Your task to perform on an android device: turn off priority inbox in the gmail app Image 0: 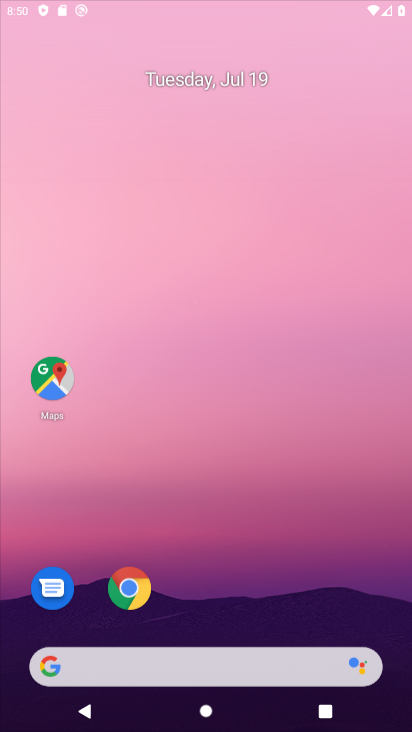
Step 0: drag from (176, 412) to (111, 49)
Your task to perform on an android device: turn off priority inbox in the gmail app Image 1: 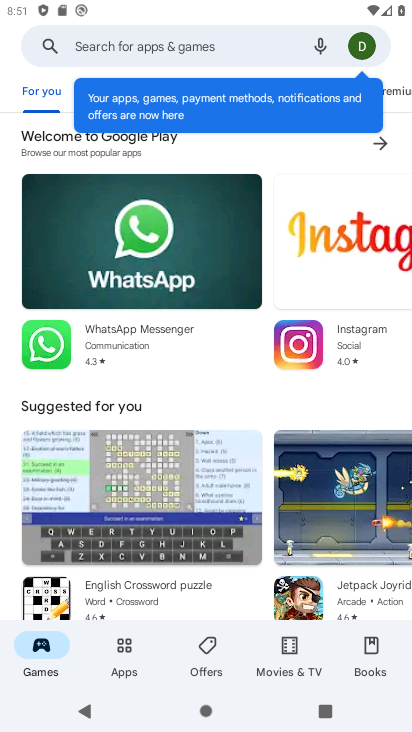
Step 1: press home button
Your task to perform on an android device: turn off priority inbox in the gmail app Image 2: 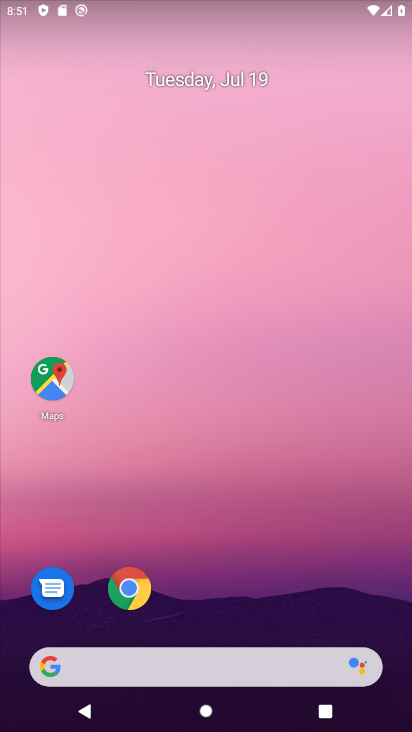
Step 2: drag from (220, 584) to (381, 17)
Your task to perform on an android device: turn off priority inbox in the gmail app Image 3: 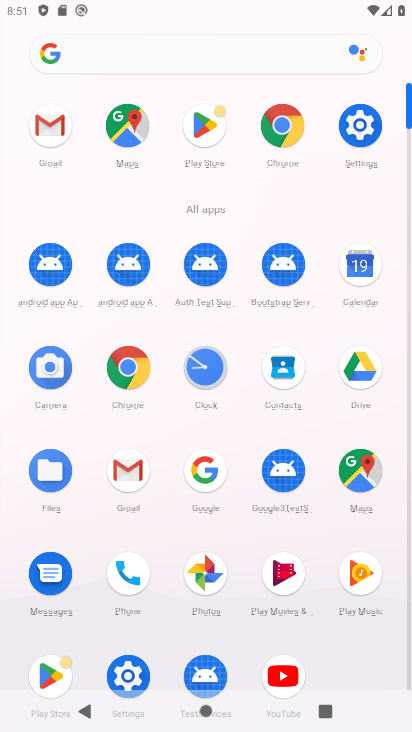
Step 3: click (62, 132)
Your task to perform on an android device: turn off priority inbox in the gmail app Image 4: 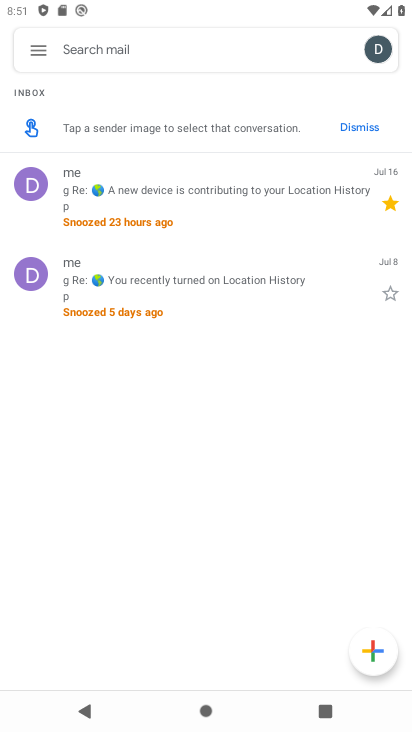
Step 4: click (50, 49)
Your task to perform on an android device: turn off priority inbox in the gmail app Image 5: 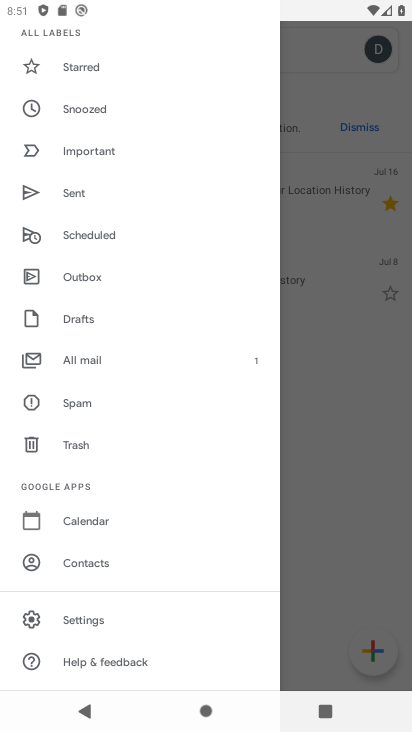
Step 5: click (53, 633)
Your task to perform on an android device: turn off priority inbox in the gmail app Image 6: 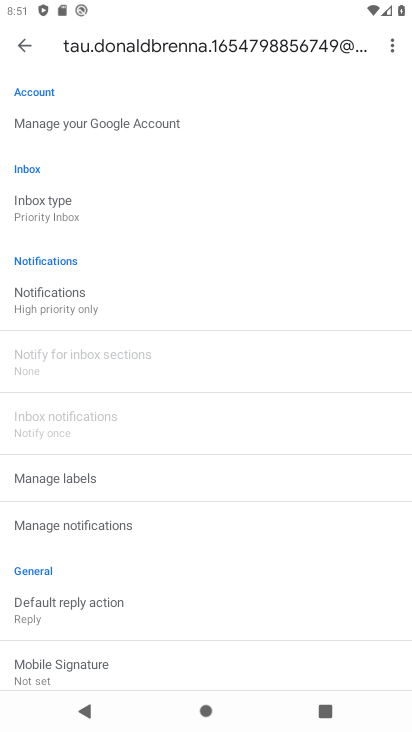
Step 6: click (66, 213)
Your task to perform on an android device: turn off priority inbox in the gmail app Image 7: 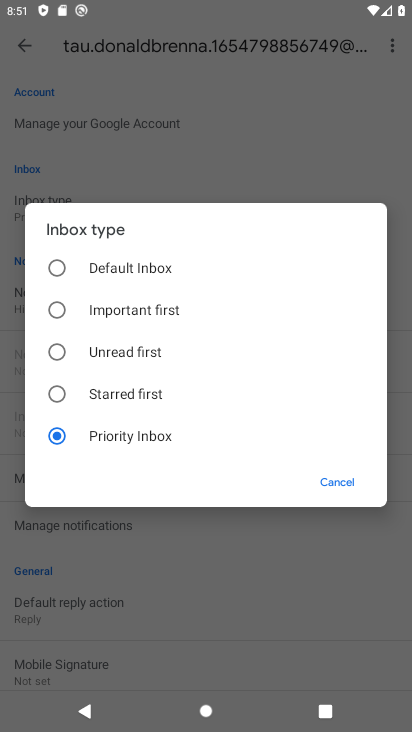
Step 7: click (49, 268)
Your task to perform on an android device: turn off priority inbox in the gmail app Image 8: 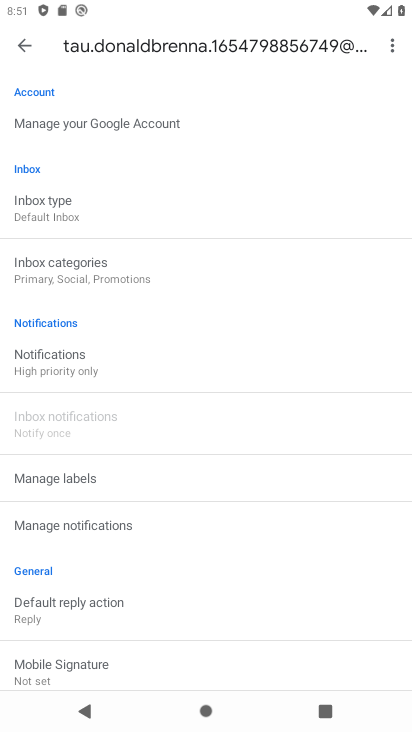
Step 8: task complete